Your task to perform on an android device: toggle pop-ups in chrome Image 0: 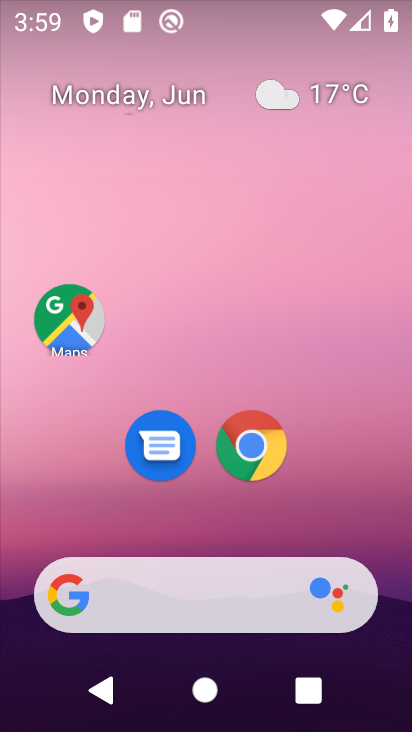
Step 0: click (243, 452)
Your task to perform on an android device: toggle pop-ups in chrome Image 1: 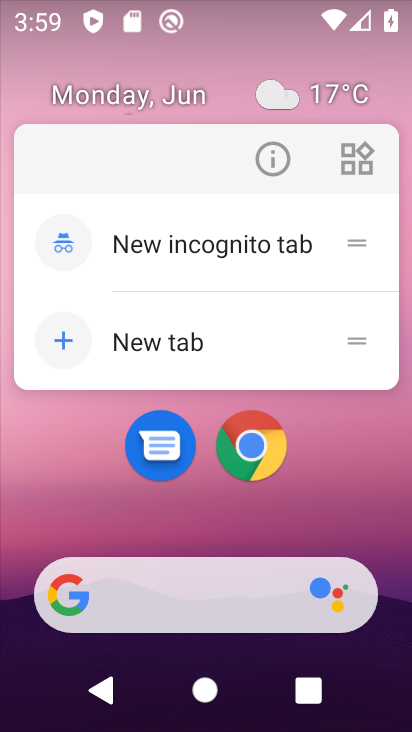
Step 1: click (253, 450)
Your task to perform on an android device: toggle pop-ups in chrome Image 2: 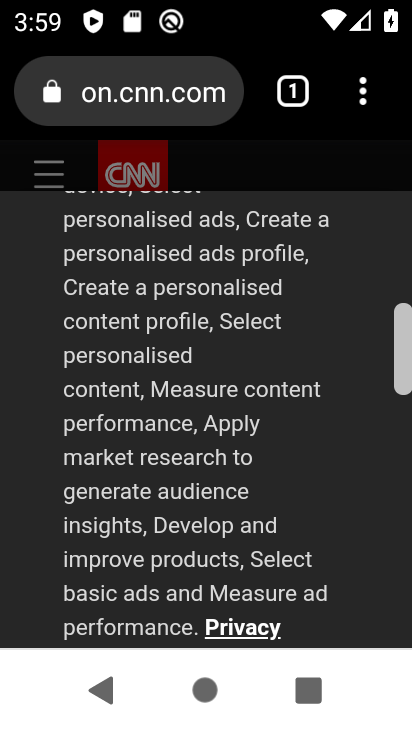
Step 2: click (358, 93)
Your task to perform on an android device: toggle pop-ups in chrome Image 3: 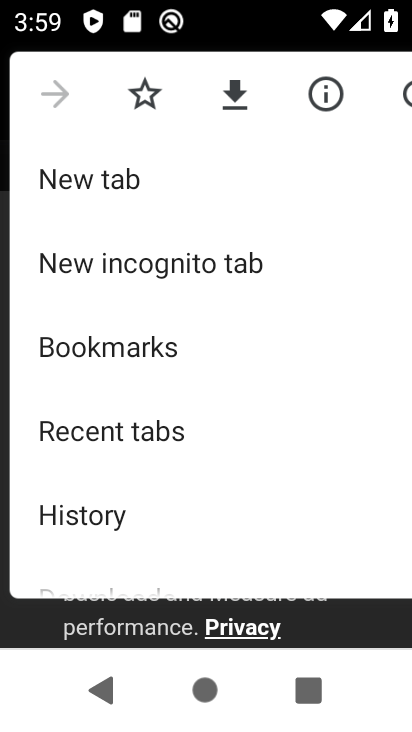
Step 3: drag from (144, 542) to (182, 253)
Your task to perform on an android device: toggle pop-ups in chrome Image 4: 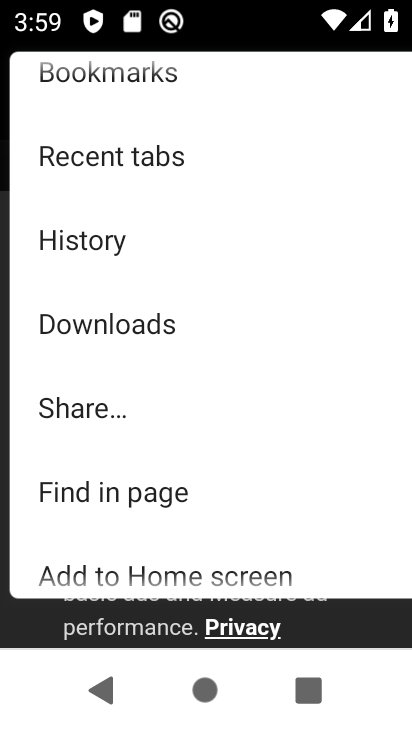
Step 4: drag from (125, 516) to (153, 245)
Your task to perform on an android device: toggle pop-ups in chrome Image 5: 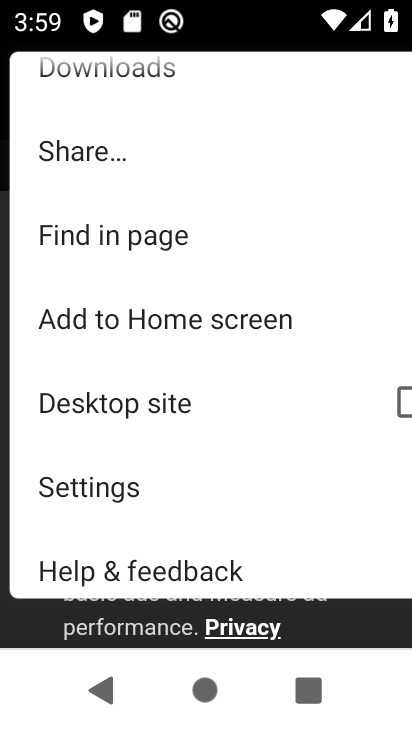
Step 5: click (120, 489)
Your task to perform on an android device: toggle pop-ups in chrome Image 6: 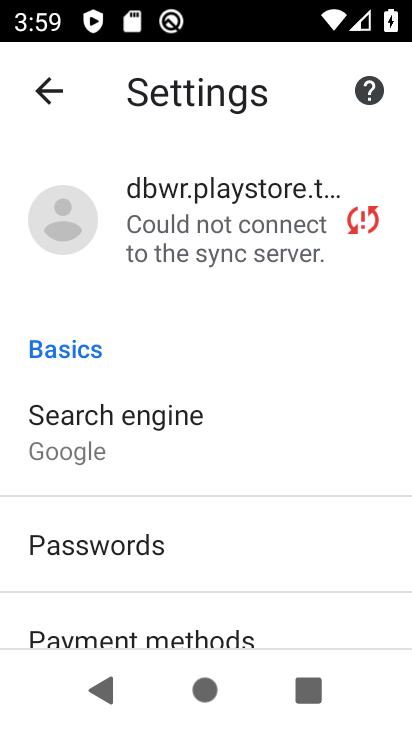
Step 6: drag from (200, 496) to (198, 210)
Your task to perform on an android device: toggle pop-ups in chrome Image 7: 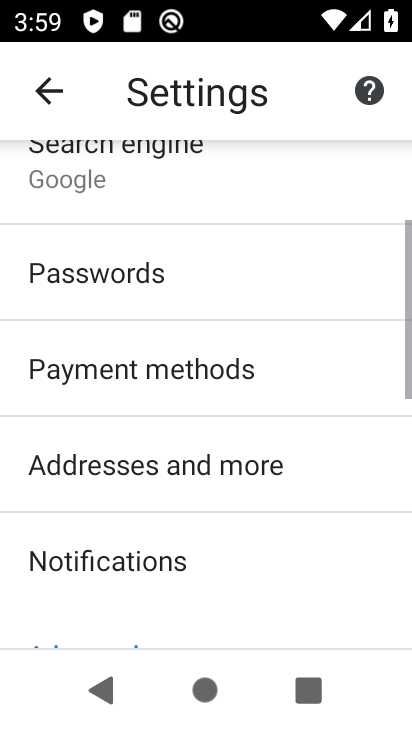
Step 7: drag from (197, 535) to (181, 240)
Your task to perform on an android device: toggle pop-ups in chrome Image 8: 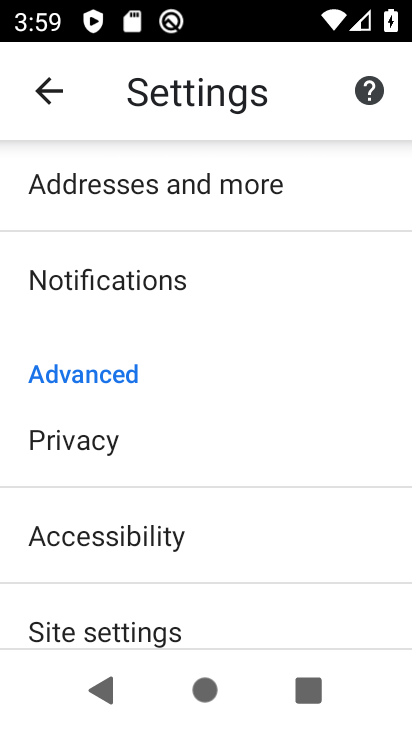
Step 8: drag from (201, 581) to (200, 320)
Your task to perform on an android device: toggle pop-ups in chrome Image 9: 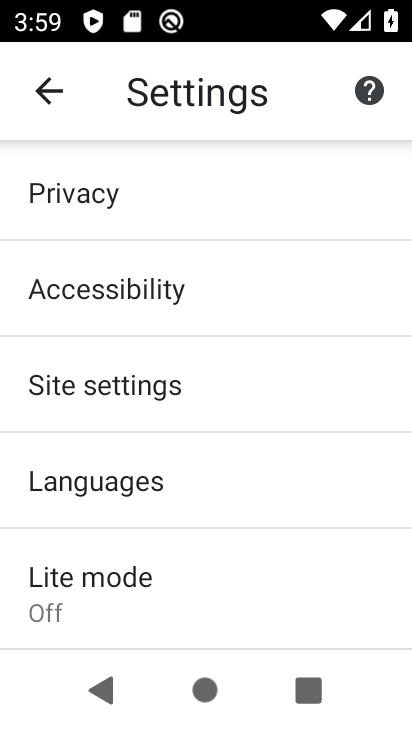
Step 9: click (149, 384)
Your task to perform on an android device: toggle pop-ups in chrome Image 10: 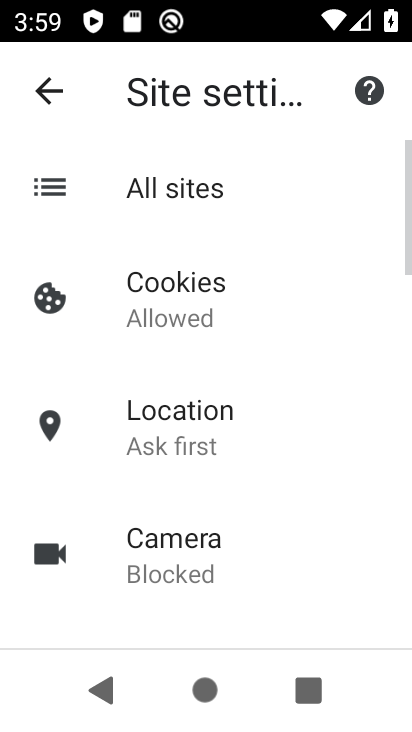
Step 10: drag from (216, 528) to (227, 260)
Your task to perform on an android device: toggle pop-ups in chrome Image 11: 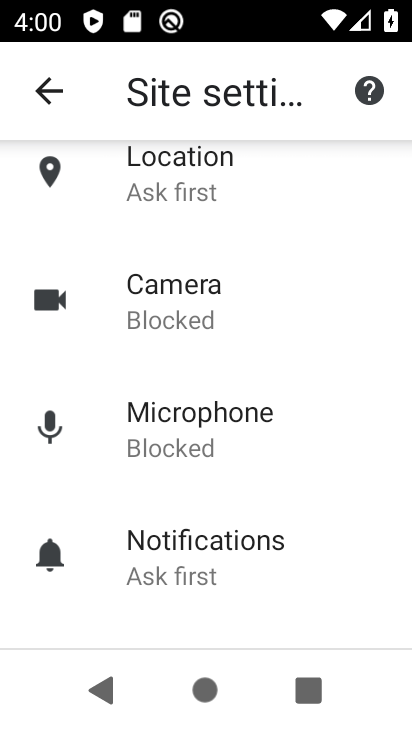
Step 11: drag from (207, 511) to (224, 277)
Your task to perform on an android device: toggle pop-ups in chrome Image 12: 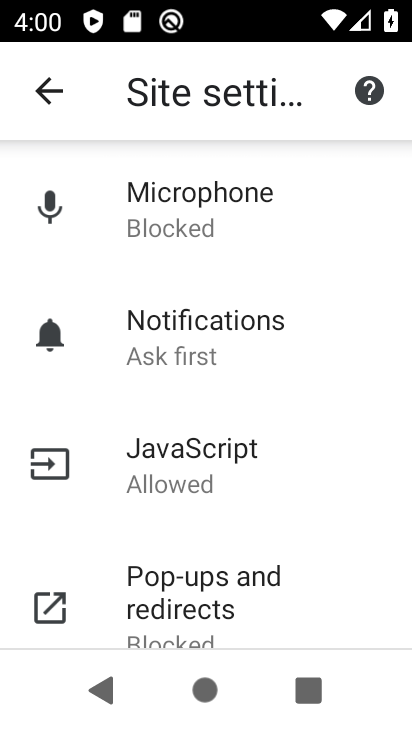
Step 12: click (220, 598)
Your task to perform on an android device: toggle pop-ups in chrome Image 13: 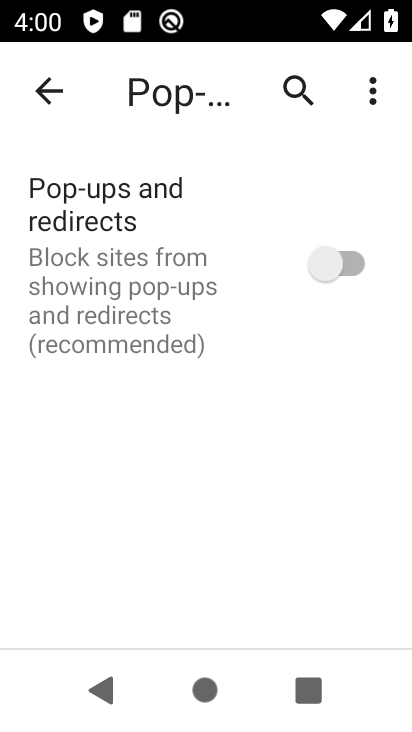
Step 13: click (358, 259)
Your task to perform on an android device: toggle pop-ups in chrome Image 14: 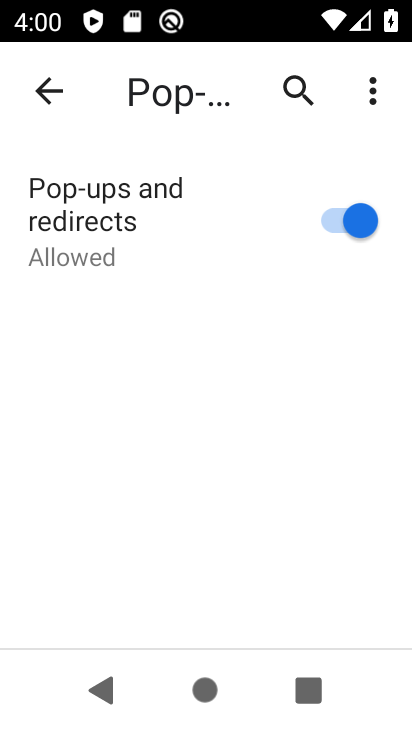
Step 14: task complete